Your task to perform on an android device: What's the weather? Image 0: 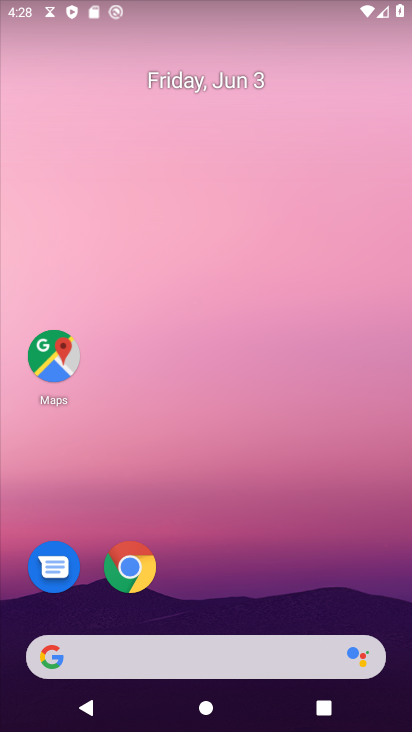
Step 0: drag from (263, 546) to (233, 73)
Your task to perform on an android device: What's the weather? Image 1: 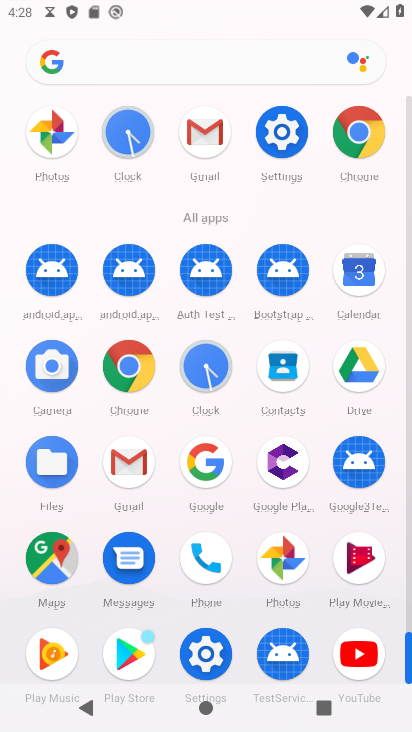
Step 1: click (202, 462)
Your task to perform on an android device: What's the weather? Image 2: 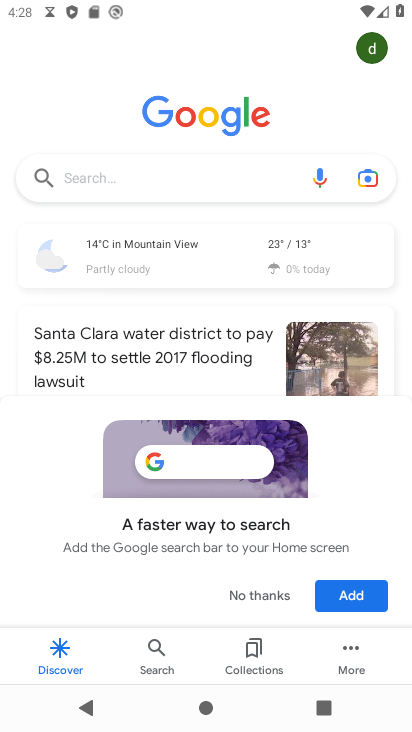
Step 2: click (255, 263)
Your task to perform on an android device: What's the weather? Image 3: 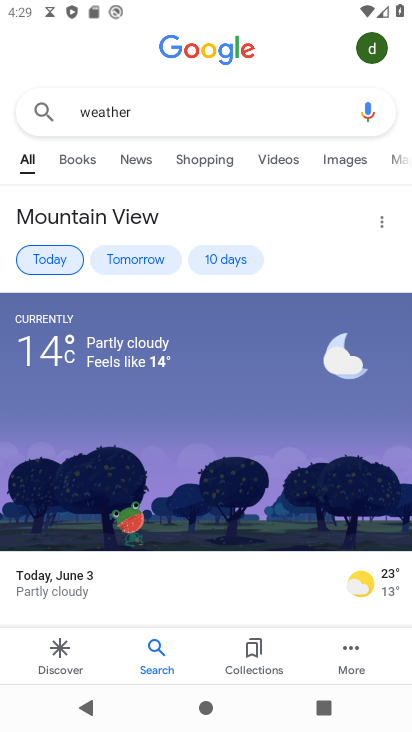
Step 3: task complete